Your task to perform on an android device: What's the weather going to be tomorrow? Image 0: 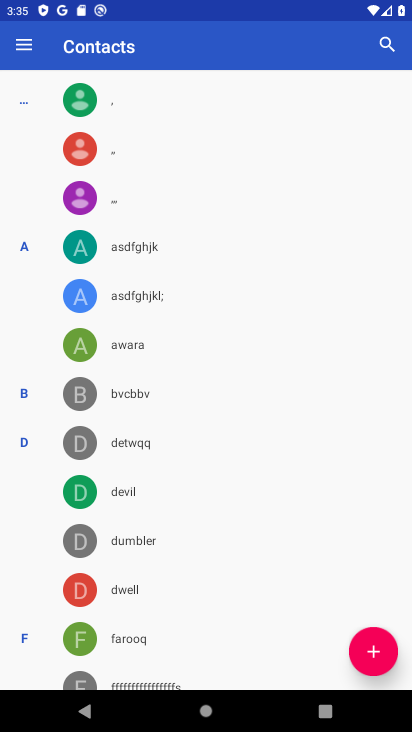
Step 0: press home button
Your task to perform on an android device: What's the weather going to be tomorrow? Image 1: 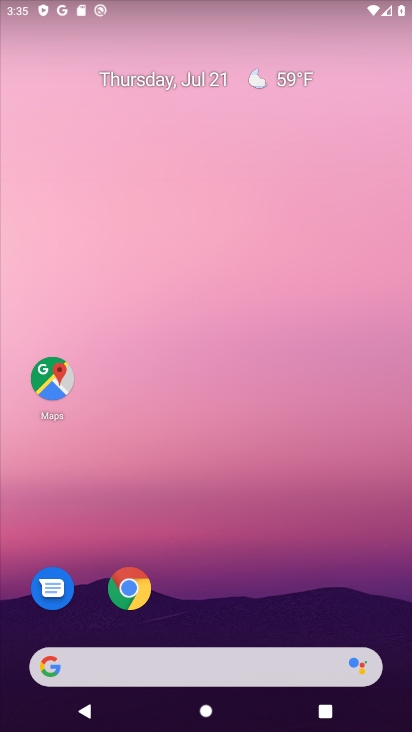
Step 1: drag from (240, 727) to (179, 154)
Your task to perform on an android device: What's the weather going to be tomorrow? Image 2: 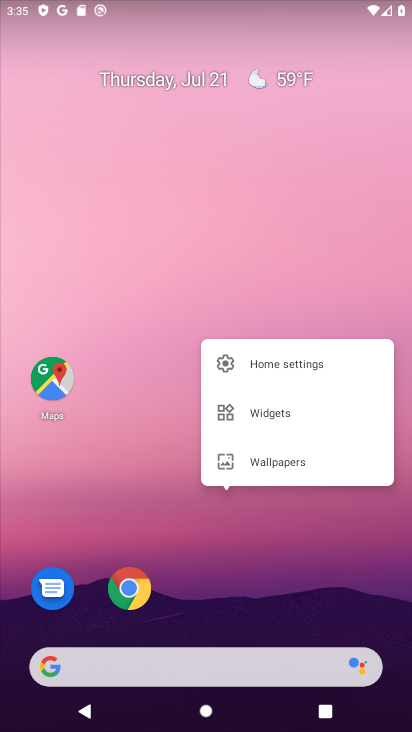
Step 2: click (216, 284)
Your task to perform on an android device: What's the weather going to be tomorrow? Image 3: 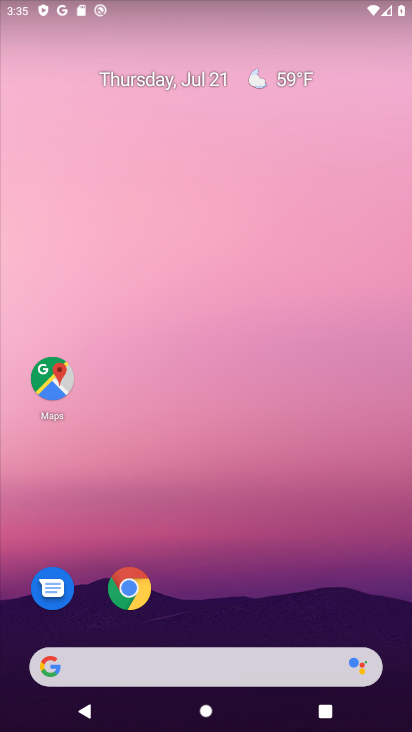
Step 3: click (254, 82)
Your task to perform on an android device: What's the weather going to be tomorrow? Image 4: 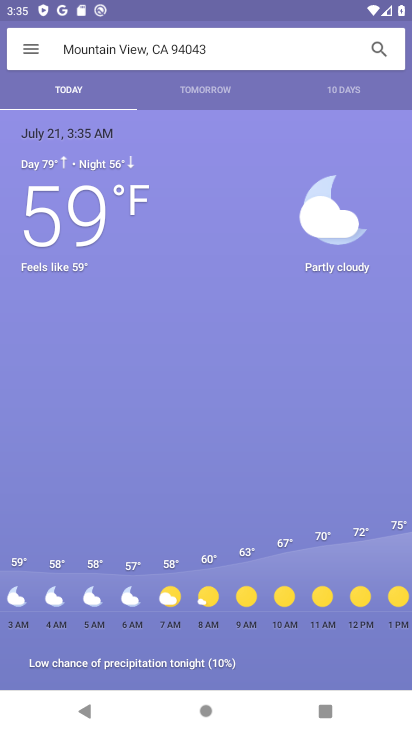
Step 4: click (201, 91)
Your task to perform on an android device: What's the weather going to be tomorrow? Image 5: 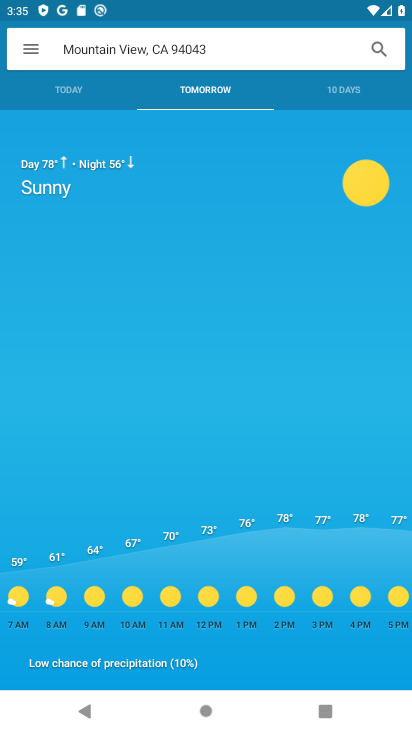
Step 5: task complete